Your task to perform on an android device: Open privacy settings Image 0: 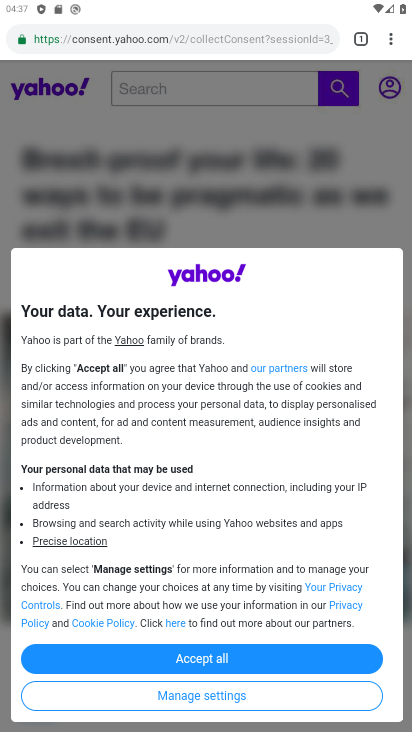
Step 0: press home button
Your task to perform on an android device: Open privacy settings Image 1: 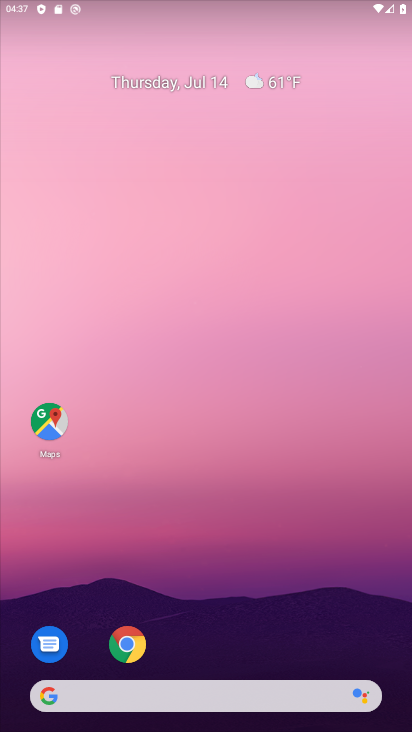
Step 1: drag from (352, 649) to (126, 5)
Your task to perform on an android device: Open privacy settings Image 2: 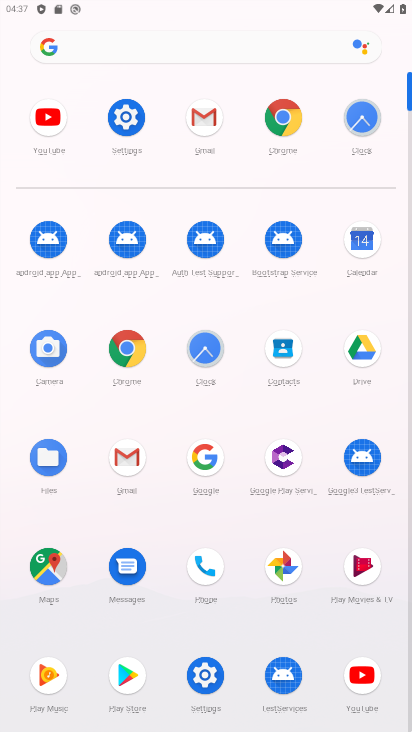
Step 2: click (135, 116)
Your task to perform on an android device: Open privacy settings Image 3: 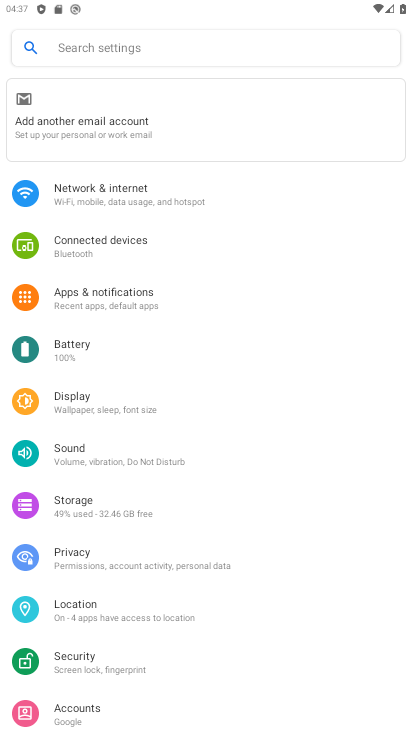
Step 3: click (94, 559)
Your task to perform on an android device: Open privacy settings Image 4: 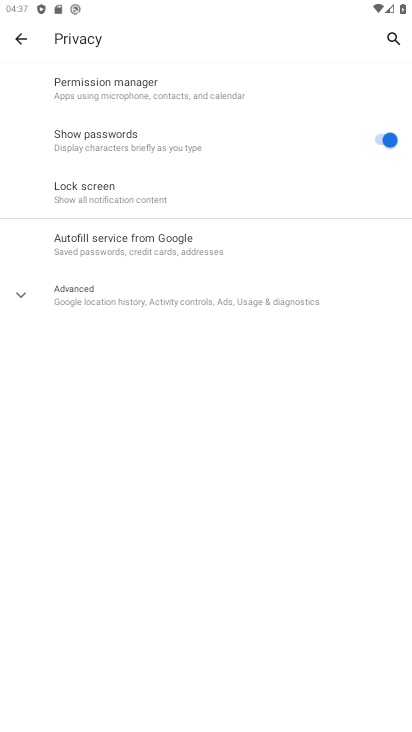
Step 4: task complete